Your task to perform on an android device: turn off wifi Image 0: 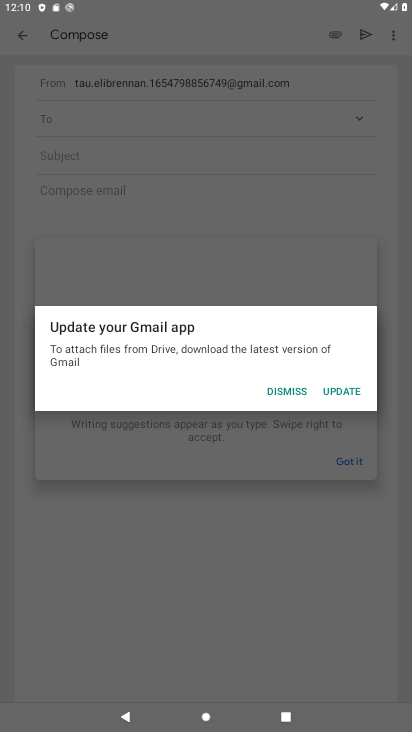
Step 0: press home button
Your task to perform on an android device: turn off wifi Image 1: 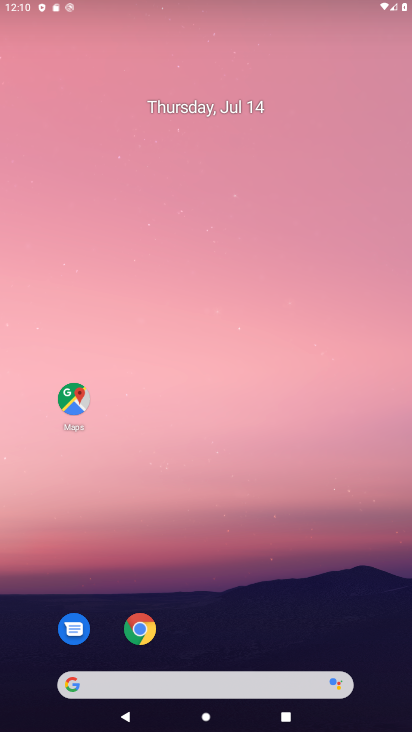
Step 1: drag from (241, 619) to (273, 225)
Your task to perform on an android device: turn off wifi Image 2: 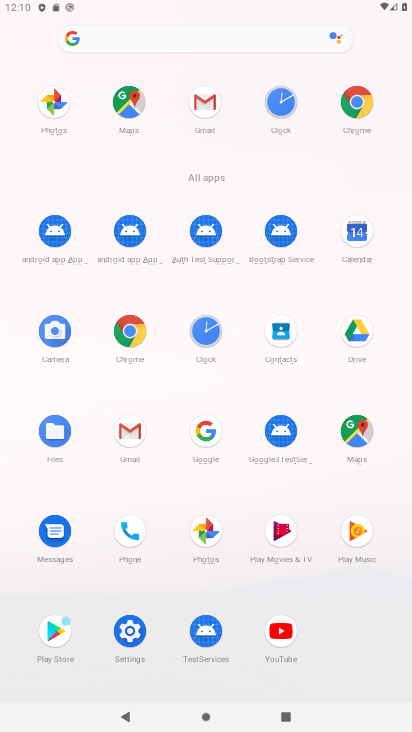
Step 2: click (127, 625)
Your task to perform on an android device: turn off wifi Image 3: 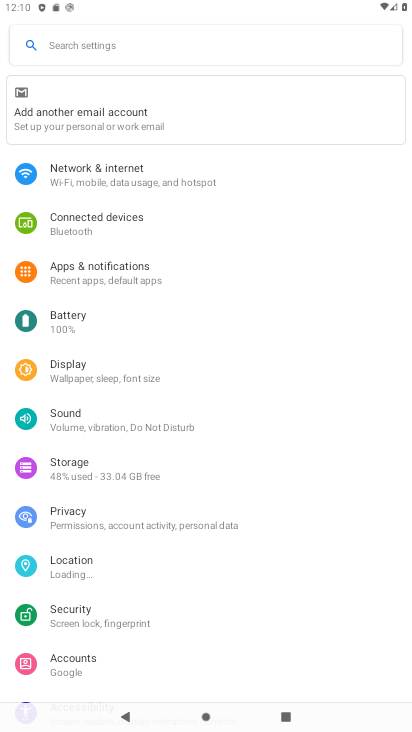
Step 3: click (120, 170)
Your task to perform on an android device: turn off wifi Image 4: 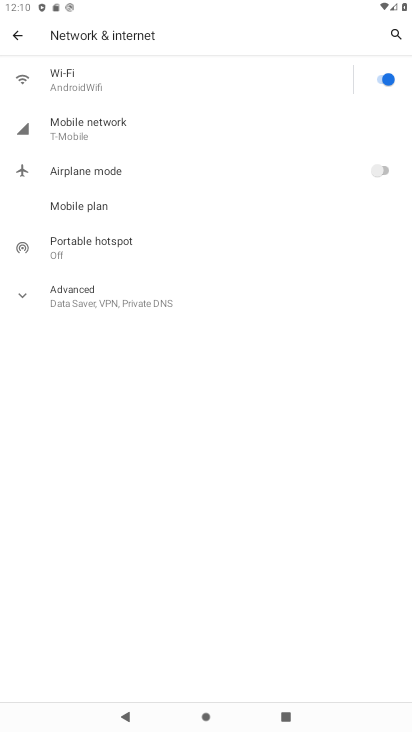
Step 4: click (380, 85)
Your task to perform on an android device: turn off wifi Image 5: 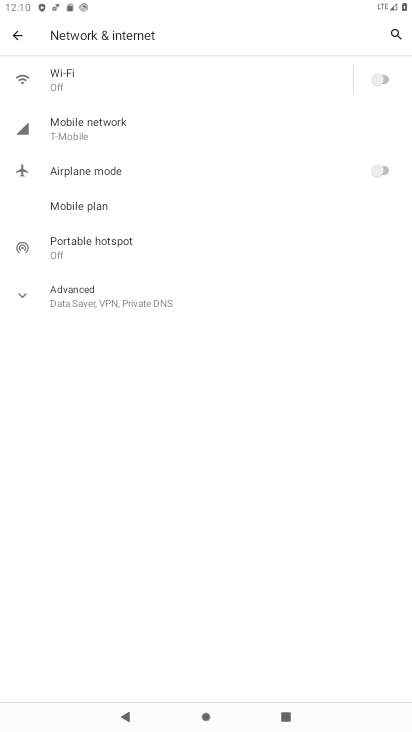
Step 5: task complete